Your task to perform on an android device: Show the shopping cart on walmart.com. Image 0: 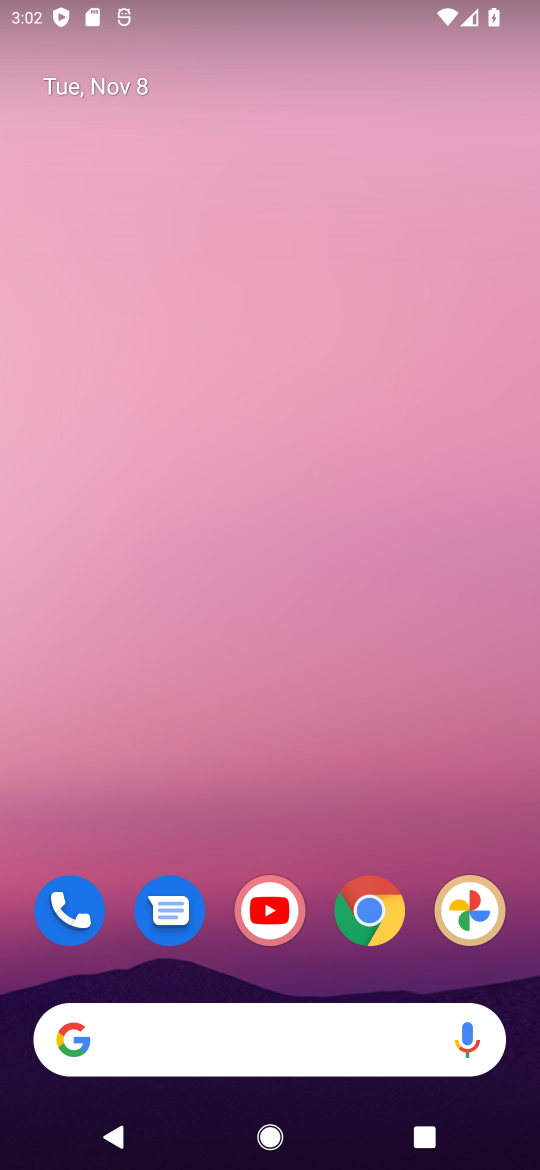
Step 0: drag from (305, 997) to (212, 164)
Your task to perform on an android device: Show the shopping cart on walmart.com. Image 1: 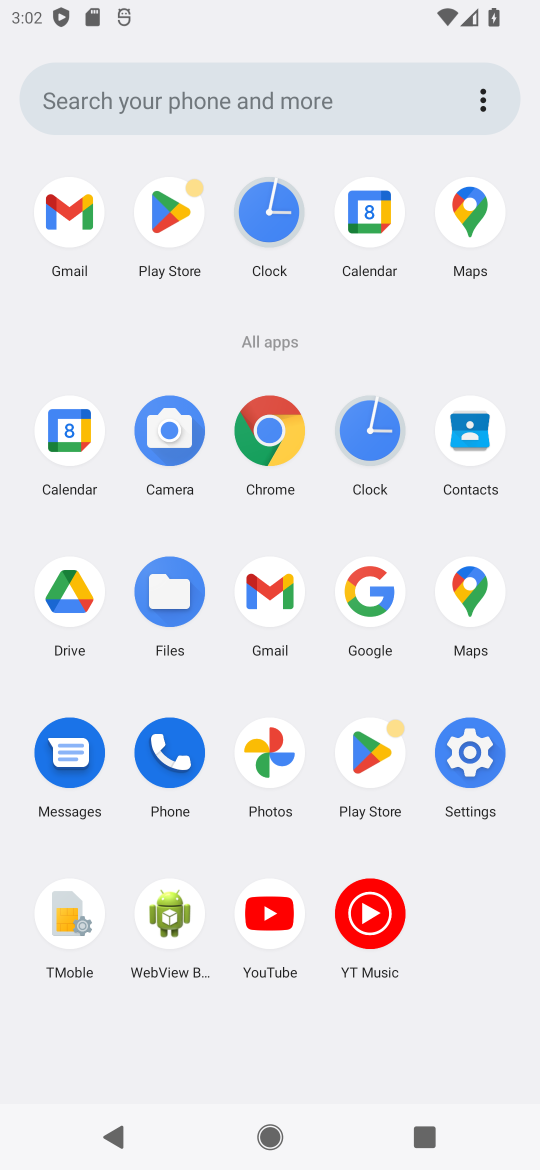
Step 1: click (269, 431)
Your task to perform on an android device: Show the shopping cart on walmart.com. Image 2: 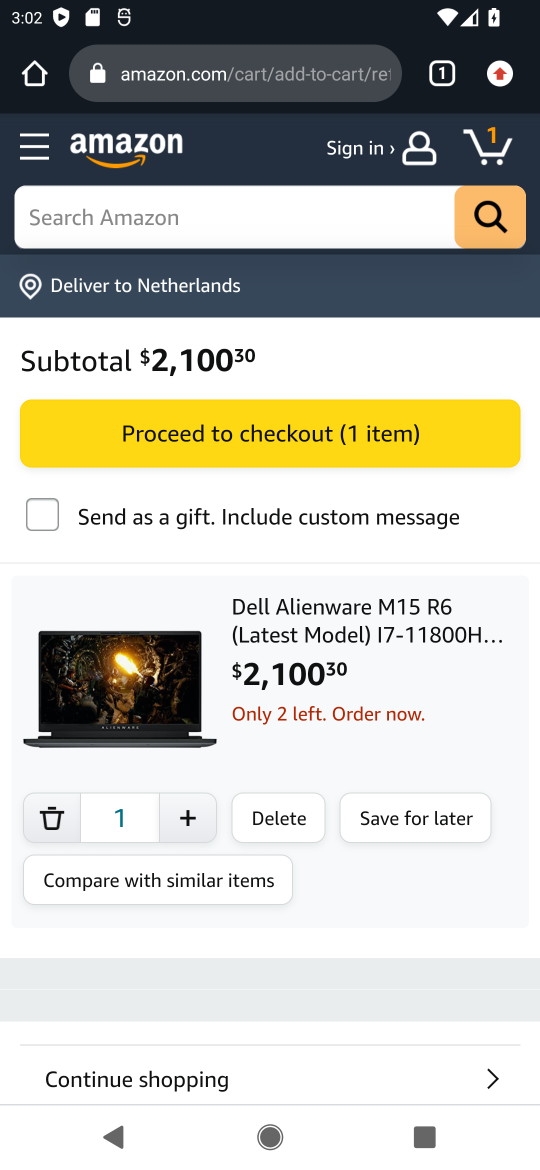
Step 2: click (267, 70)
Your task to perform on an android device: Show the shopping cart on walmart.com. Image 3: 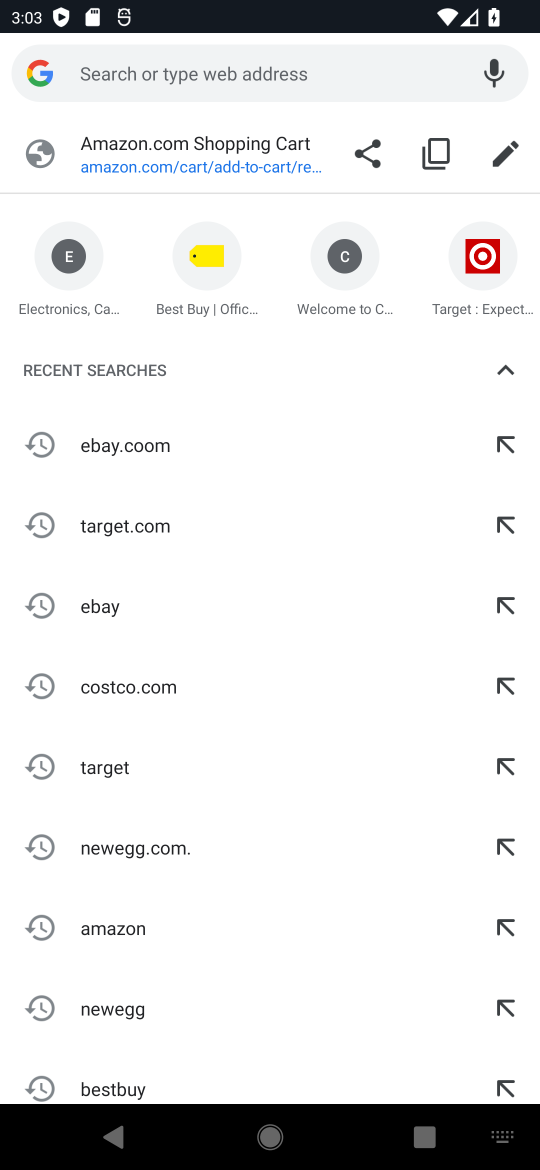
Step 3: type "walmart.com"
Your task to perform on an android device: Show the shopping cart on walmart.com. Image 4: 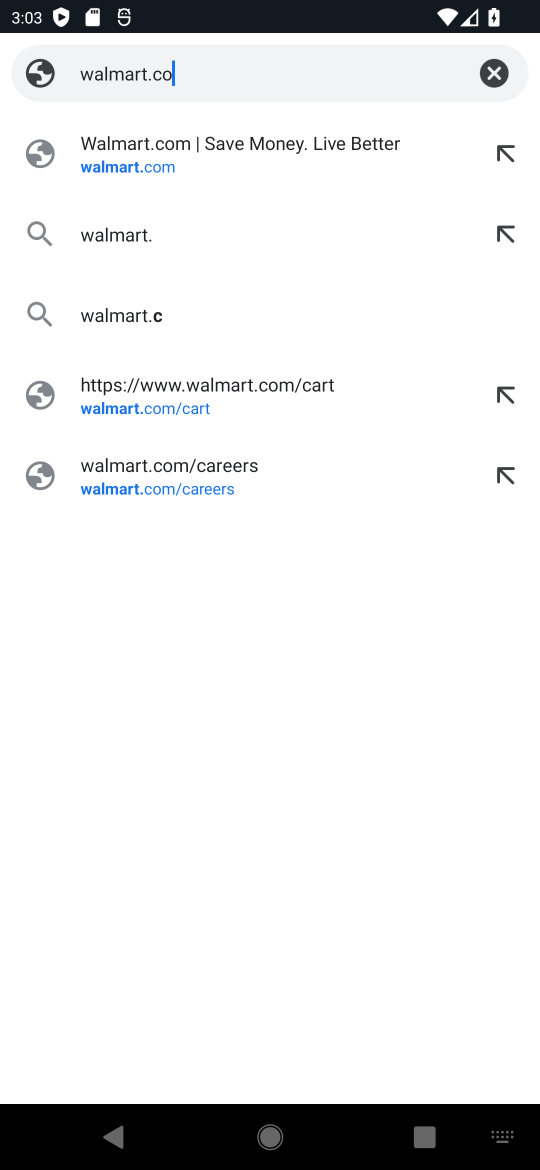
Step 4: press enter
Your task to perform on an android device: Show the shopping cart on walmart.com. Image 5: 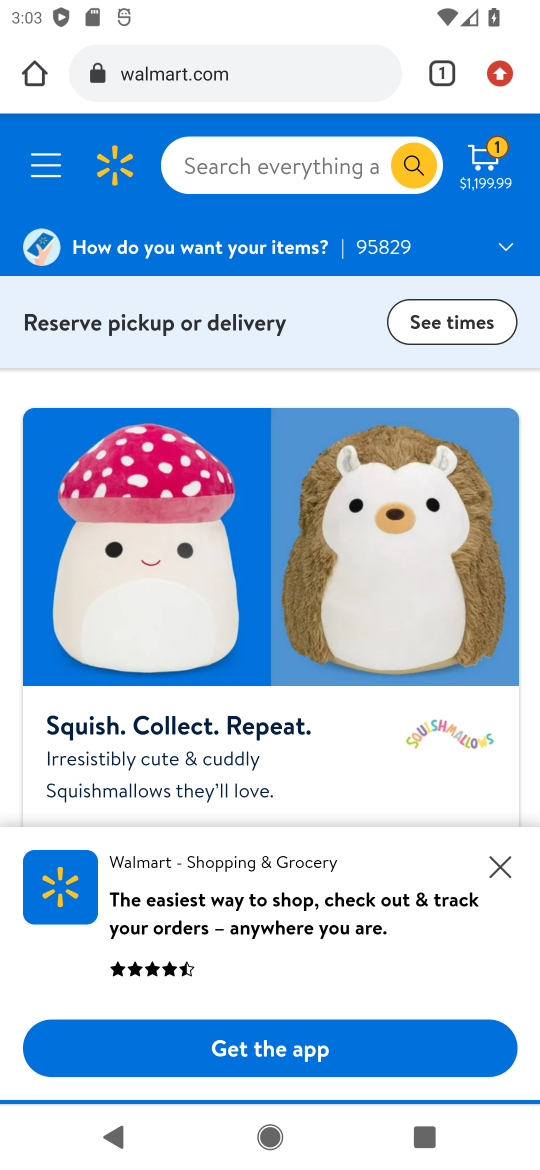
Step 5: click (473, 164)
Your task to perform on an android device: Show the shopping cart on walmart.com. Image 6: 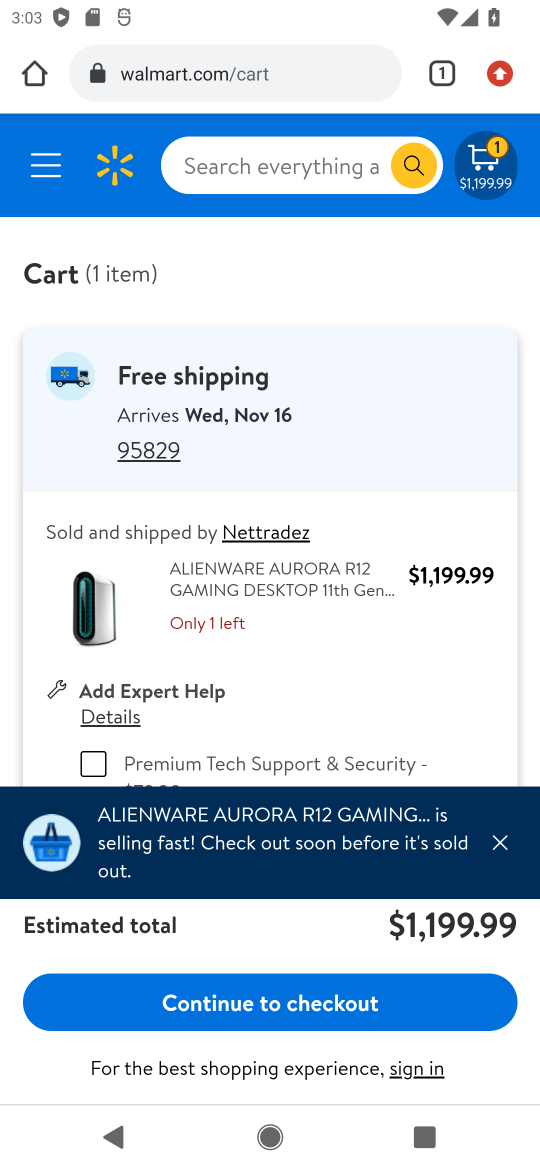
Step 6: task complete